Your task to perform on an android device: see tabs open on other devices in the chrome app Image 0: 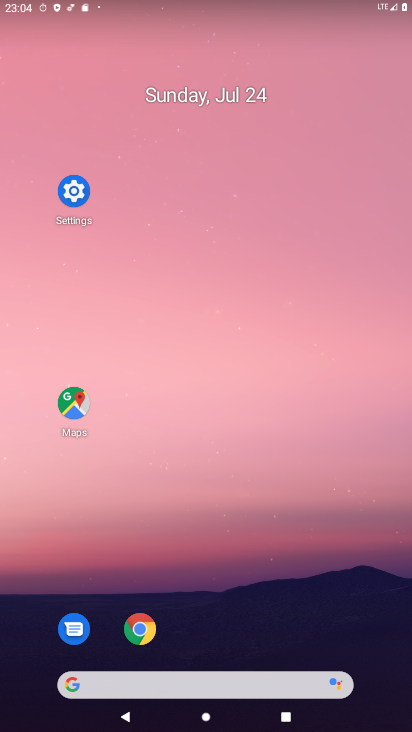
Step 0: drag from (210, 642) to (205, 175)
Your task to perform on an android device: see tabs open on other devices in the chrome app Image 1: 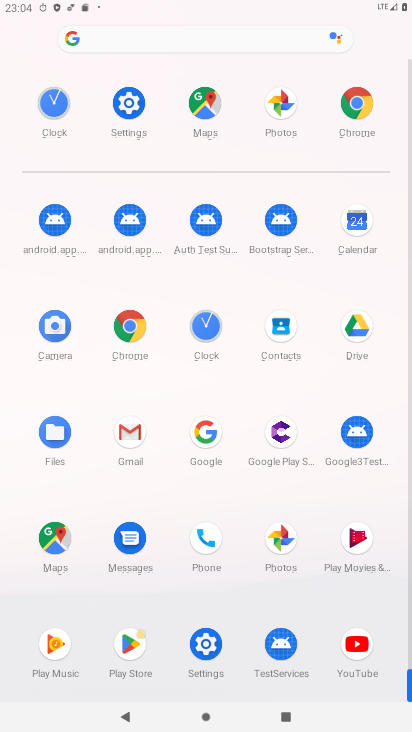
Step 1: click (356, 97)
Your task to perform on an android device: see tabs open on other devices in the chrome app Image 2: 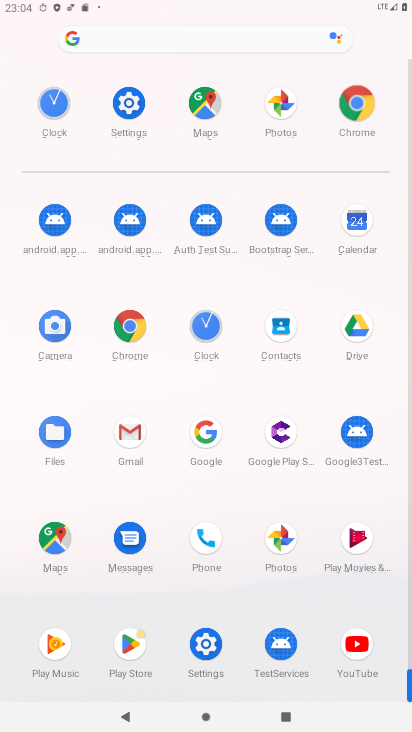
Step 2: click (356, 105)
Your task to perform on an android device: see tabs open on other devices in the chrome app Image 3: 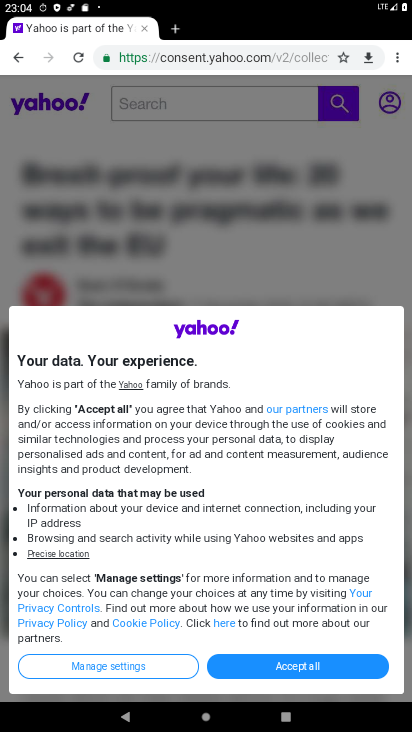
Step 3: drag from (394, 54) to (295, 139)
Your task to perform on an android device: see tabs open on other devices in the chrome app Image 4: 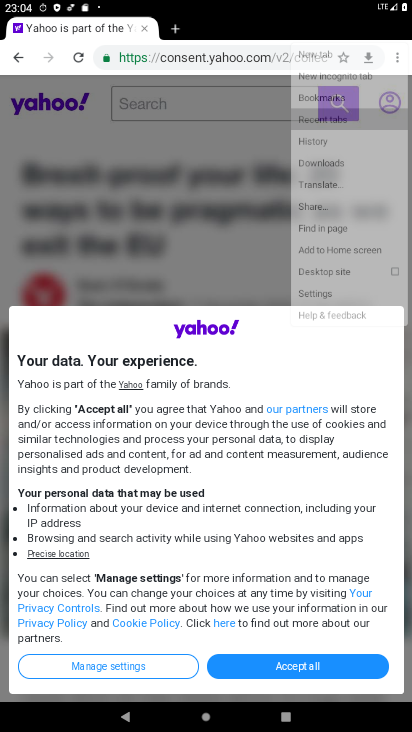
Step 4: click (315, 154)
Your task to perform on an android device: see tabs open on other devices in the chrome app Image 5: 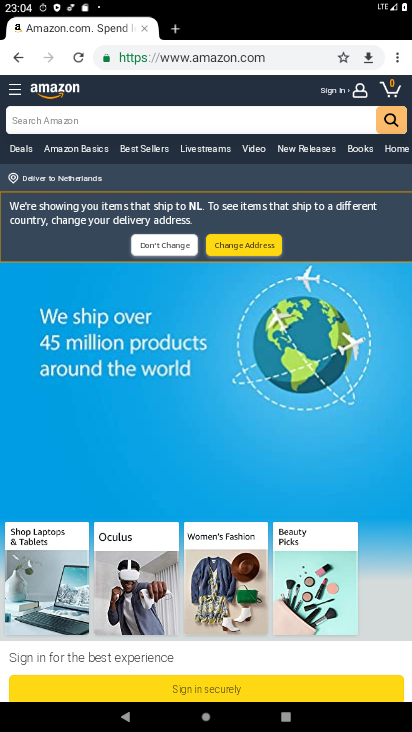
Step 5: drag from (399, 56) to (271, 149)
Your task to perform on an android device: see tabs open on other devices in the chrome app Image 6: 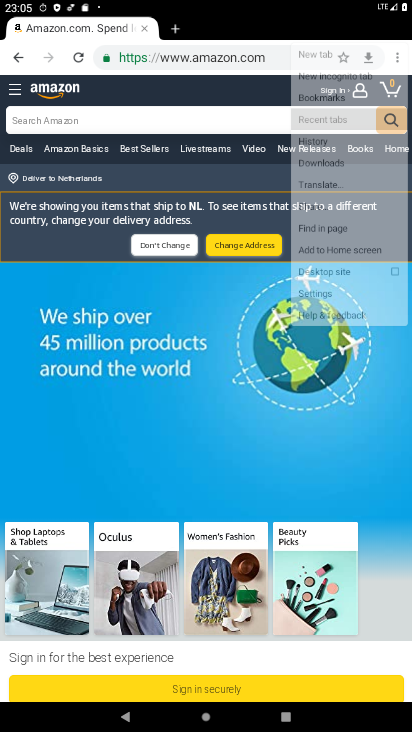
Step 6: click (287, 155)
Your task to perform on an android device: see tabs open on other devices in the chrome app Image 7: 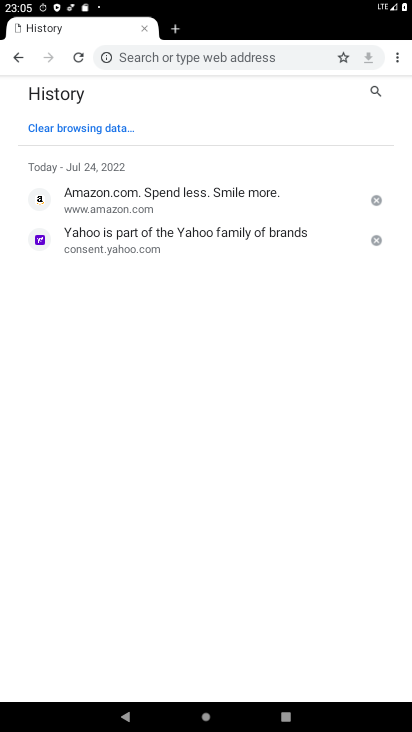
Step 7: task complete